Your task to perform on an android device: turn notification dots off Image 0: 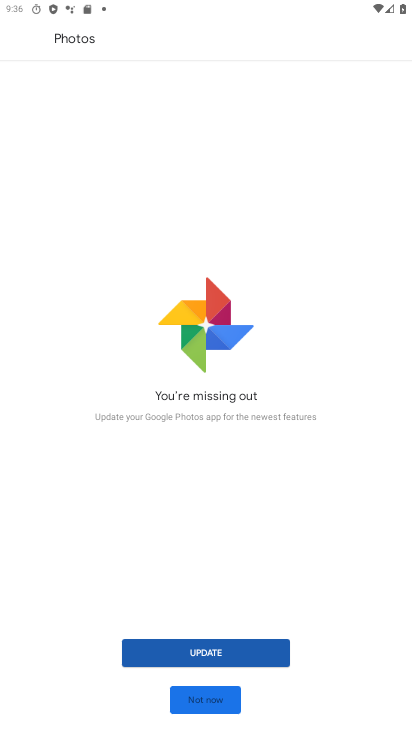
Step 0: press back button
Your task to perform on an android device: turn notification dots off Image 1: 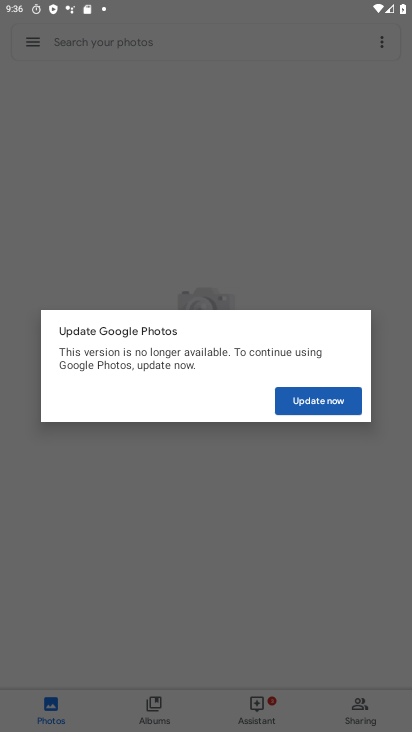
Step 1: click (323, 406)
Your task to perform on an android device: turn notification dots off Image 2: 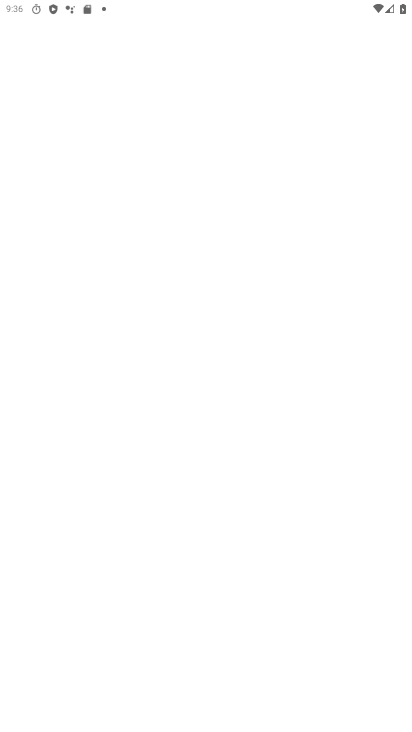
Step 2: press home button
Your task to perform on an android device: turn notification dots off Image 3: 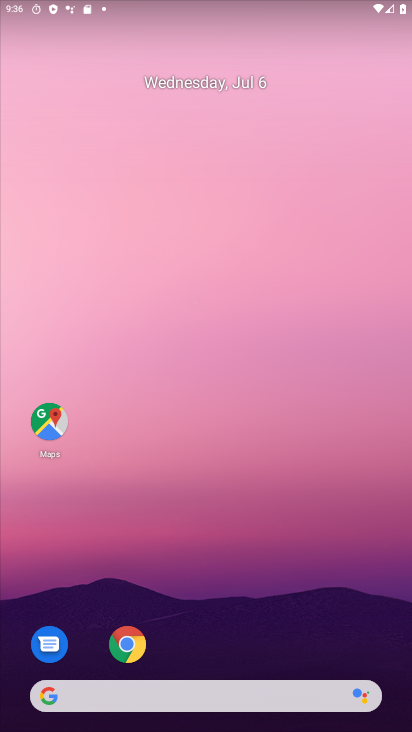
Step 3: drag from (244, 616) to (206, 138)
Your task to perform on an android device: turn notification dots off Image 4: 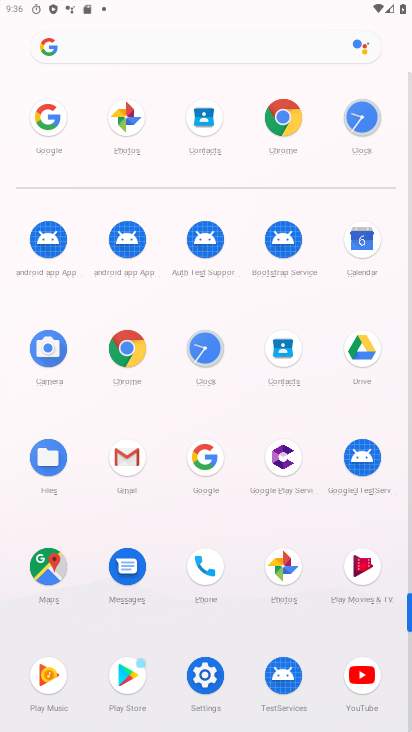
Step 4: click (210, 674)
Your task to perform on an android device: turn notification dots off Image 5: 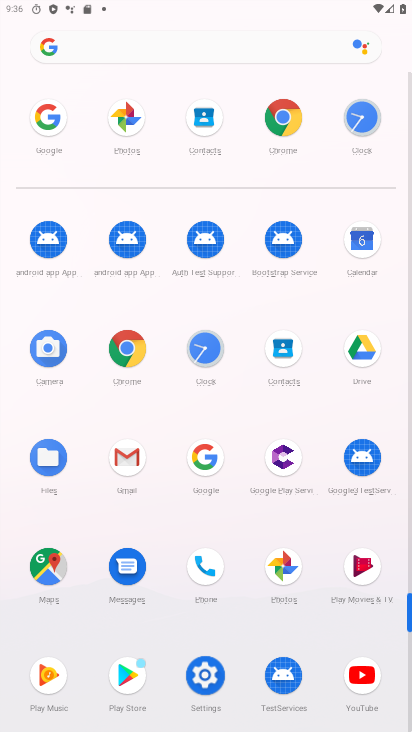
Step 5: click (215, 669)
Your task to perform on an android device: turn notification dots off Image 6: 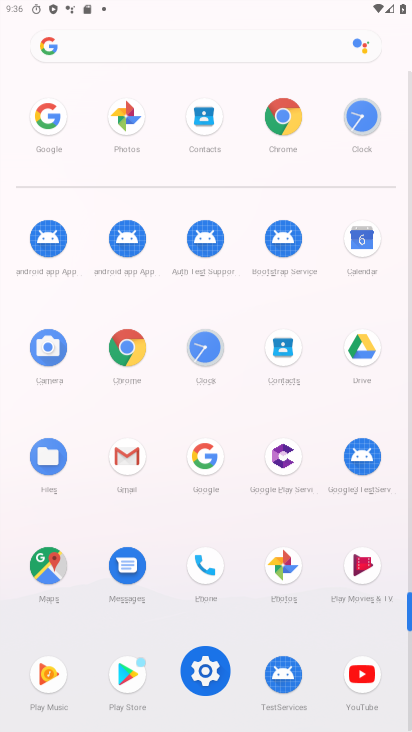
Step 6: click (228, 667)
Your task to perform on an android device: turn notification dots off Image 7: 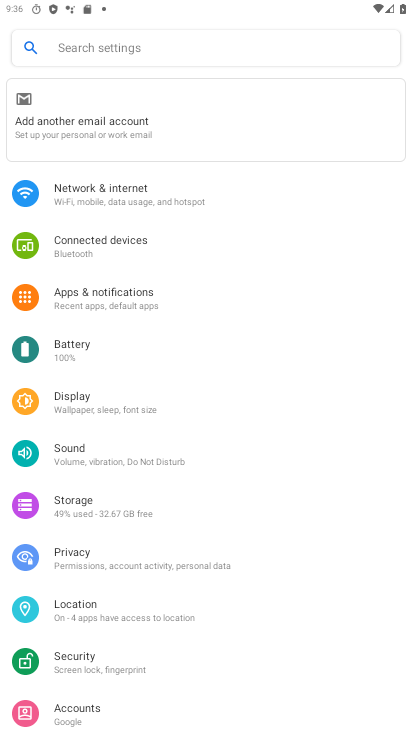
Step 7: click (130, 287)
Your task to perform on an android device: turn notification dots off Image 8: 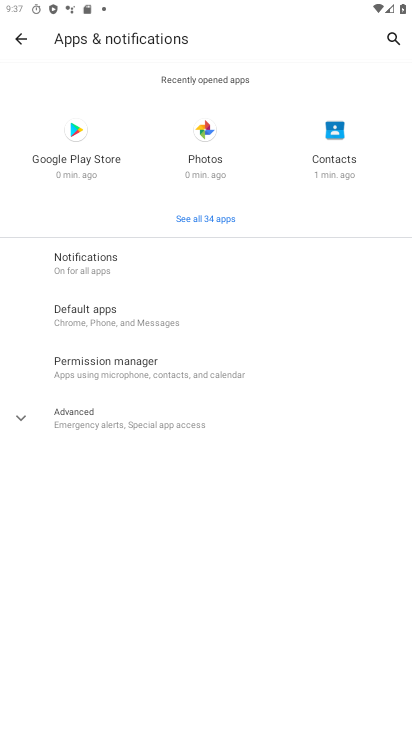
Step 8: click (68, 265)
Your task to perform on an android device: turn notification dots off Image 9: 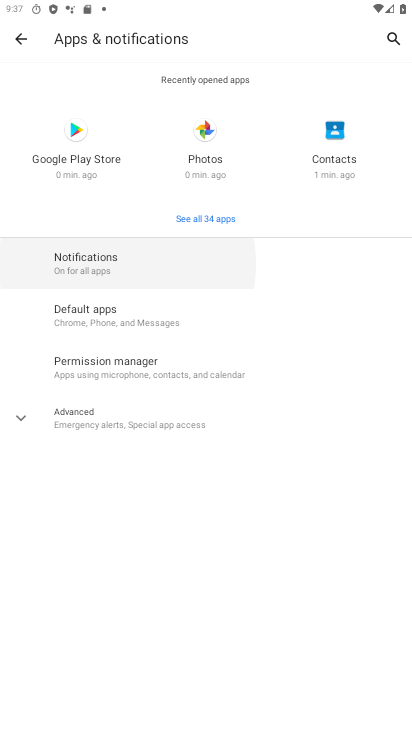
Step 9: click (66, 265)
Your task to perform on an android device: turn notification dots off Image 10: 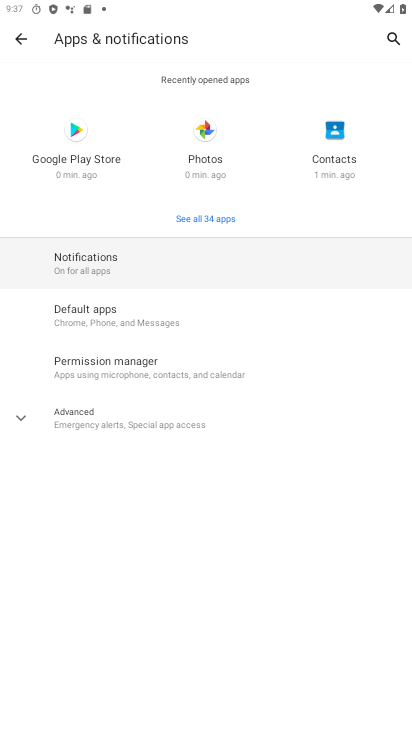
Step 10: click (67, 266)
Your task to perform on an android device: turn notification dots off Image 11: 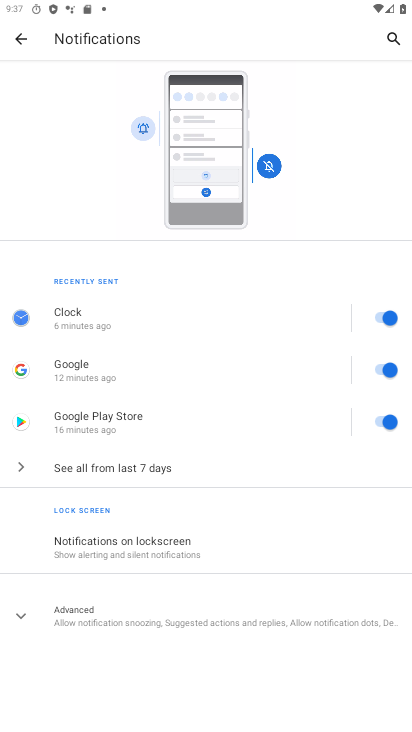
Step 11: click (117, 556)
Your task to perform on an android device: turn notification dots off Image 12: 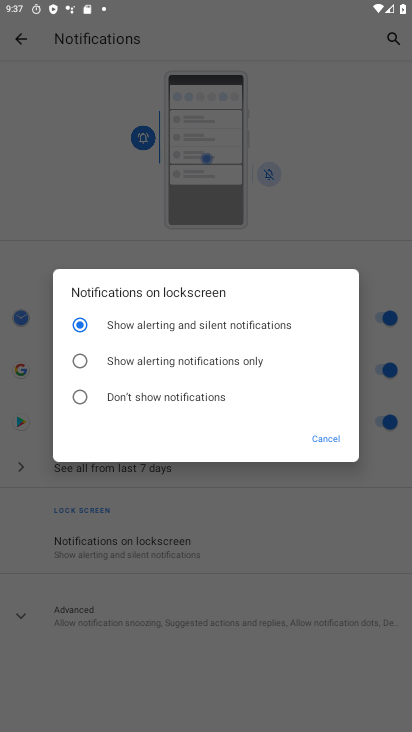
Step 12: click (331, 437)
Your task to perform on an android device: turn notification dots off Image 13: 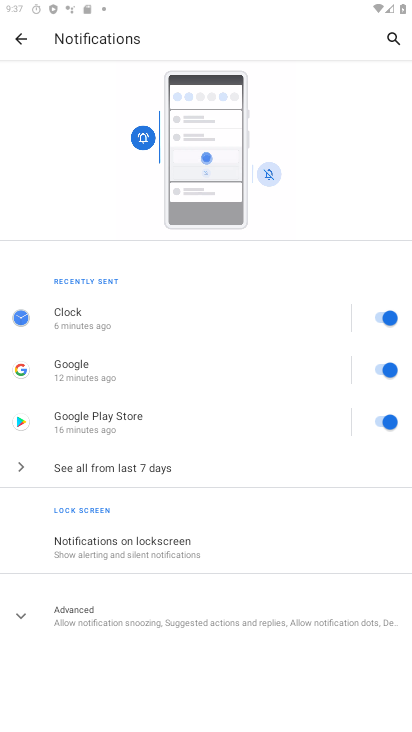
Step 13: click (102, 620)
Your task to perform on an android device: turn notification dots off Image 14: 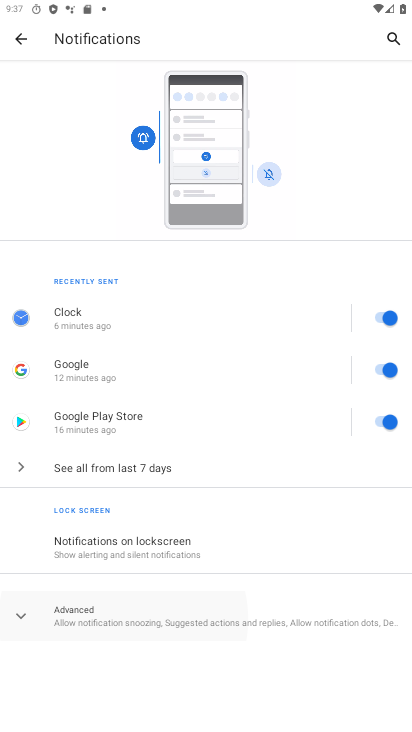
Step 14: click (101, 620)
Your task to perform on an android device: turn notification dots off Image 15: 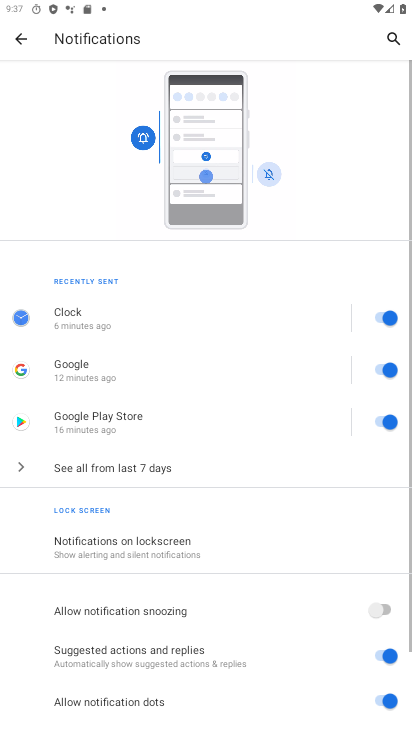
Step 15: click (101, 620)
Your task to perform on an android device: turn notification dots off Image 16: 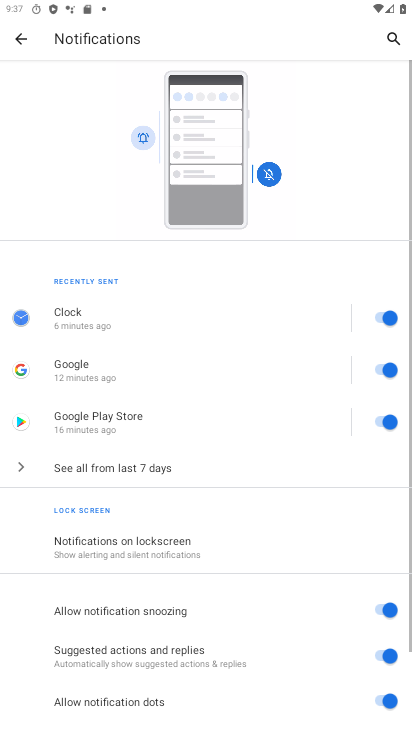
Step 16: drag from (202, 627) to (184, 219)
Your task to perform on an android device: turn notification dots off Image 17: 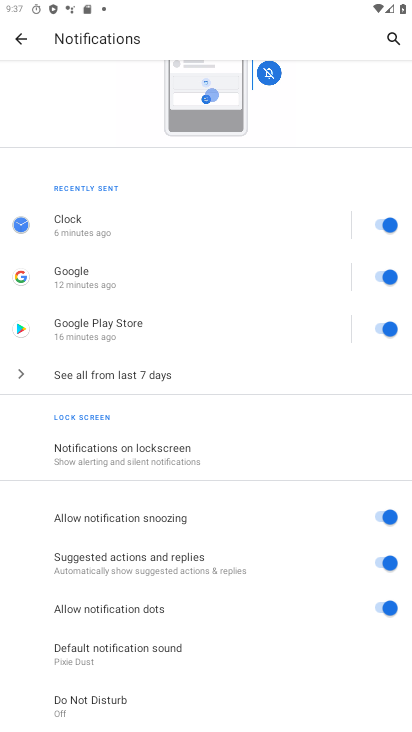
Step 17: click (401, 611)
Your task to perform on an android device: turn notification dots off Image 18: 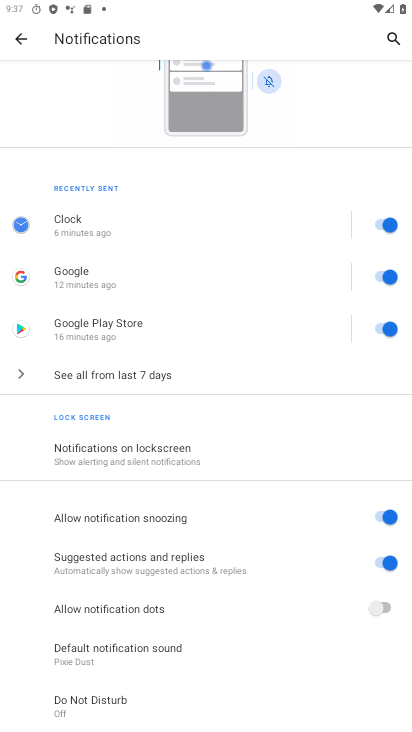
Step 18: task complete